Your task to perform on an android device: check out phone information Image 0: 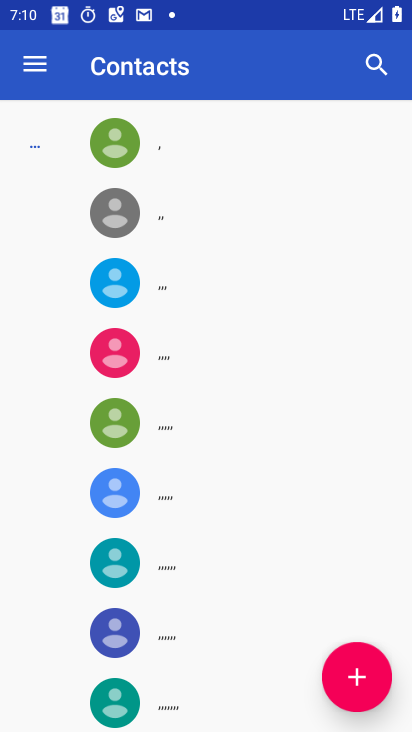
Step 0: press home button
Your task to perform on an android device: check out phone information Image 1: 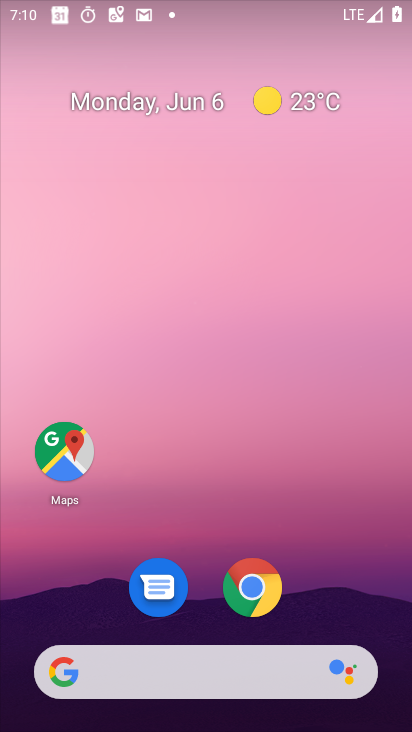
Step 1: drag from (394, 690) to (322, 51)
Your task to perform on an android device: check out phone information Image 2: 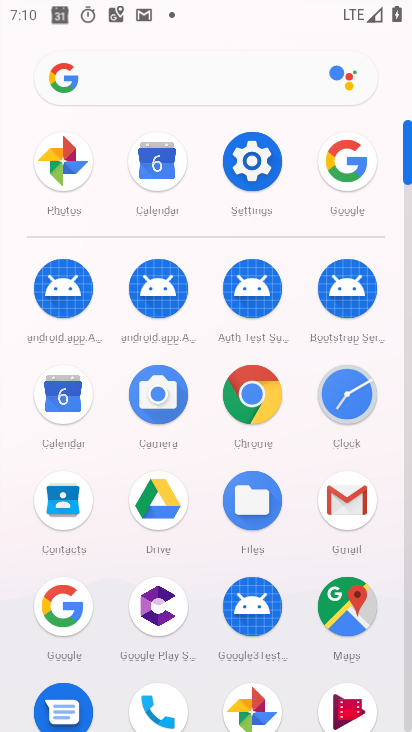
Step 2: drag from (295, 663) to (323, 95)
Your task to perform on an android device: check out phone information Image 3: 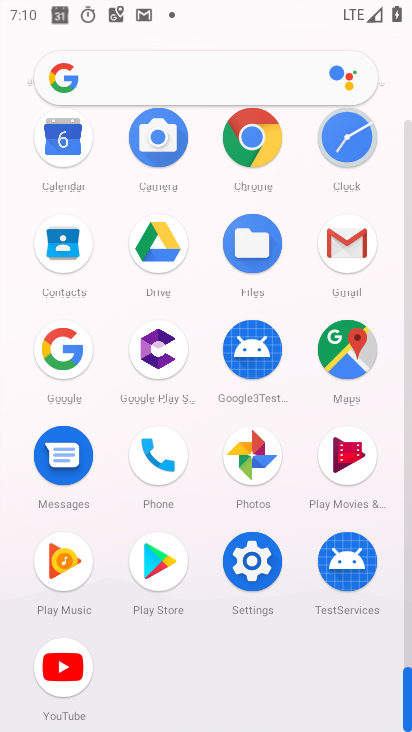
Step 3: click (228, 574)
Your task to perform on an android device: check out phone information Image 4: 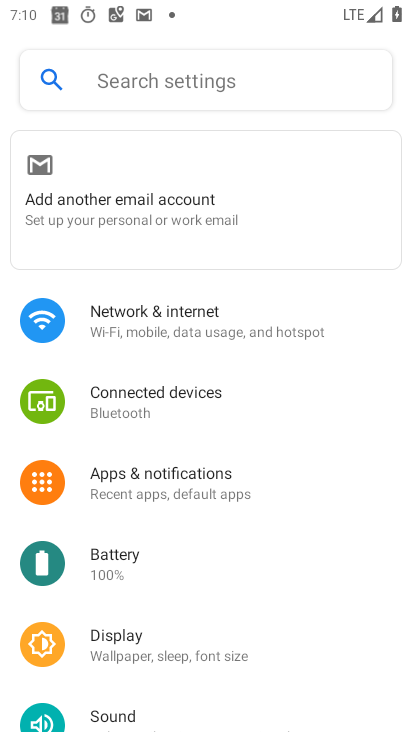
Step 4: drag from (167, 689) to (145, 265)
Your task to perform on an android device: check out phone information Image 5: 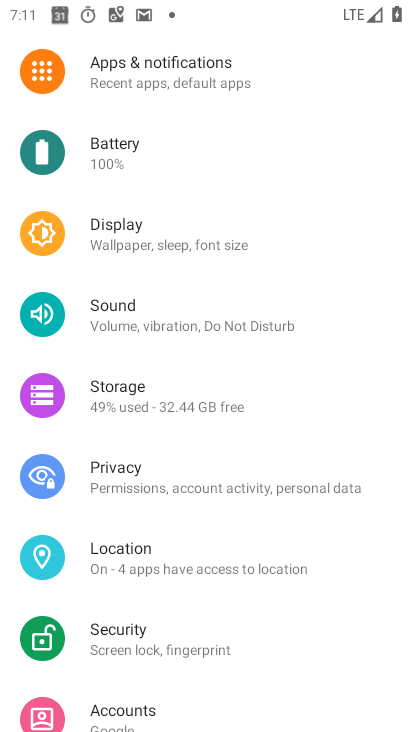
Step 5: drag from (175, 671) to (247, 177)
Your task to perform on an android device: check out phone information Image 6: 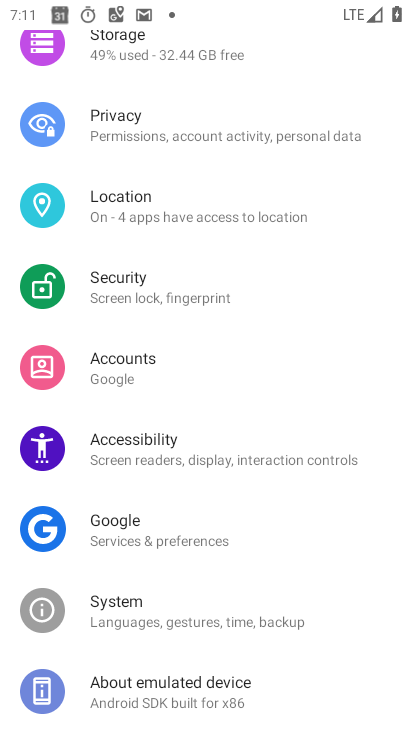
Step 6: click (165, 678)
Your task to perform on an android device: check out phone information Image 7: 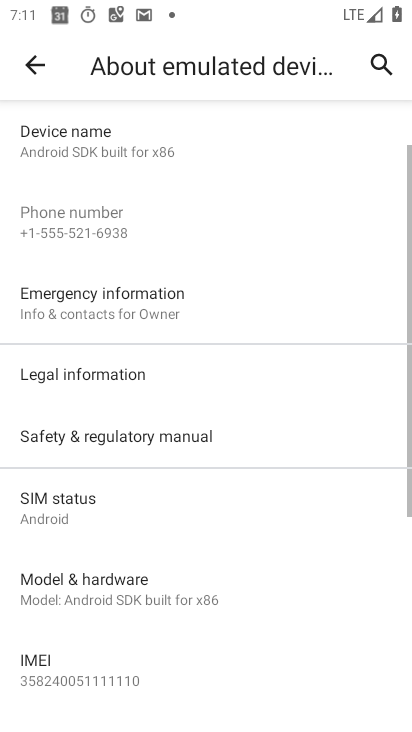
Step 7: task complete